Your task to perform on an android device: toggle javascript in the chrome app Image 0: 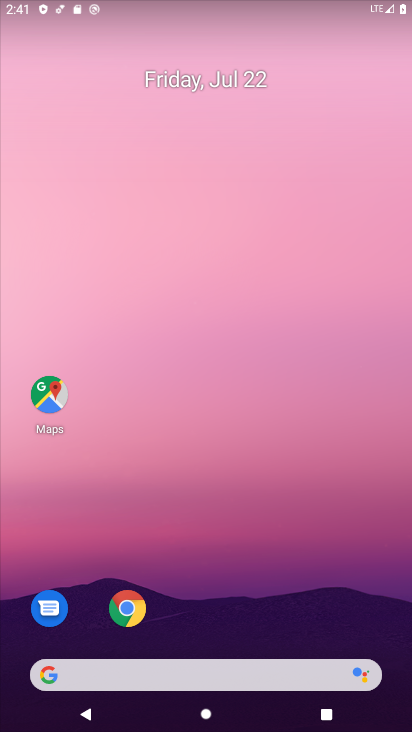
Step 0: click (136, 614)
Your task to perform on an android device: toggle javascript in the chrome app Image 1: 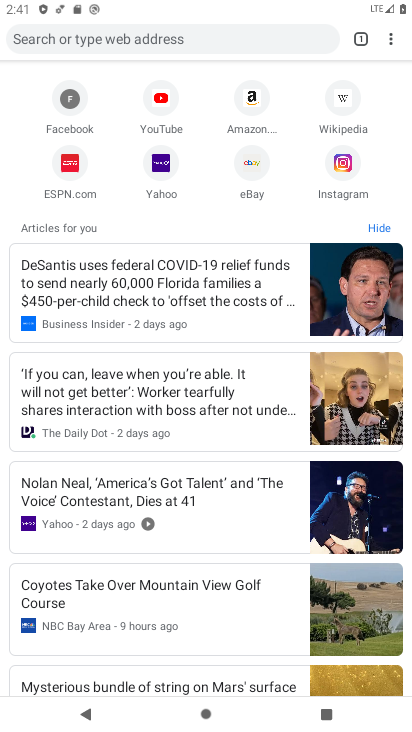
Step 1: click (391, 44)
Your task to perform on an android device: toggle javascript in the chrome app Image 2: 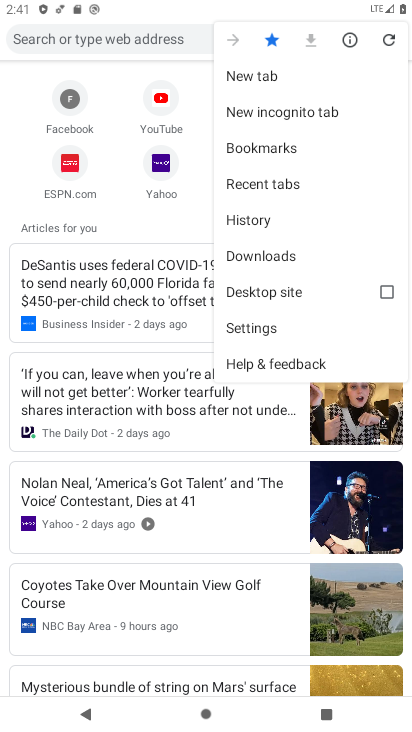
Step 2: click (288, 326)
Your task to perform on an android device: toggle javascript in the chrome app Image 3: 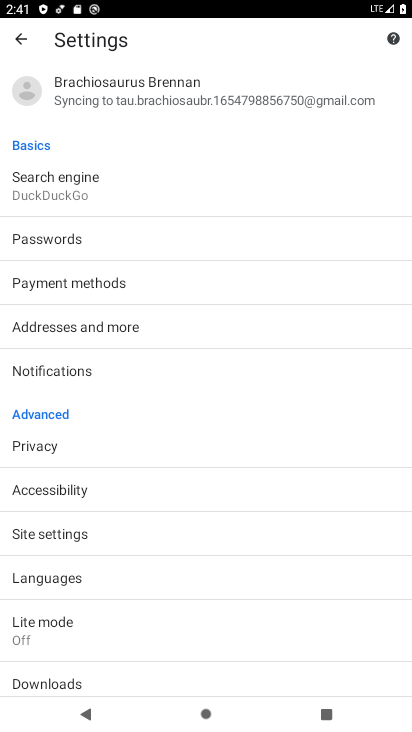
Step 3: click (126, 538)
Your task to perform on an android device: toggle javascript in the chrome app Image 4: 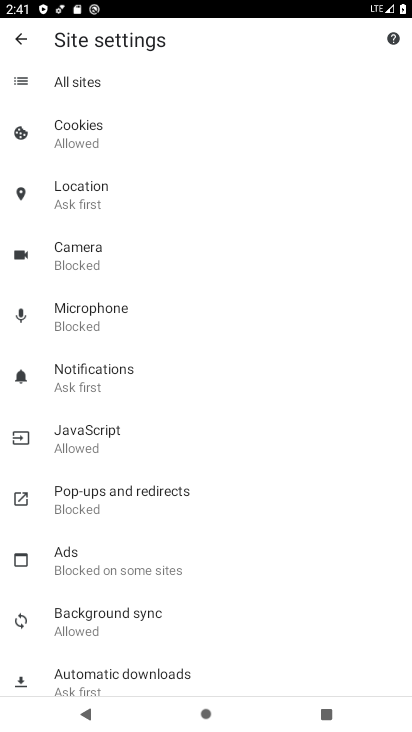
Step 4: click (100, 441)
Your task to perform on an android device: toggle javascript in the chrome app Image 5: 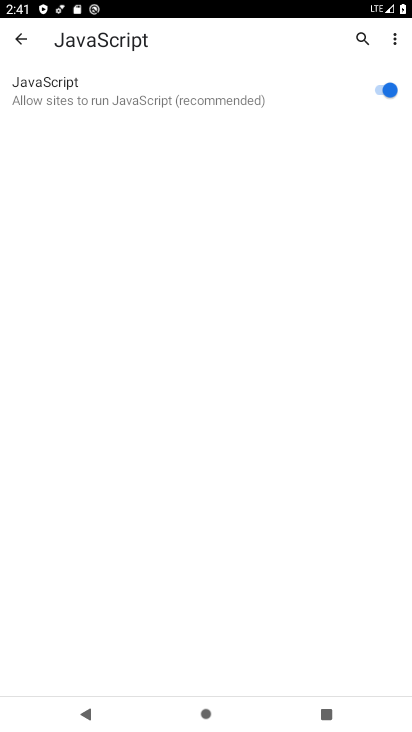
Step 5: click (387, 88)
Your task to perform on an android device: toggle javascript in the chrome app Image 6: 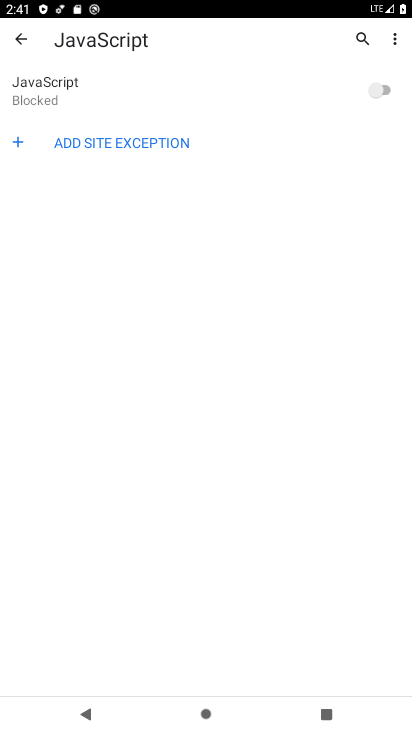
Step 6: task complete